Your task to perform on an android device: Show me popular videos on Youtube Image 0: 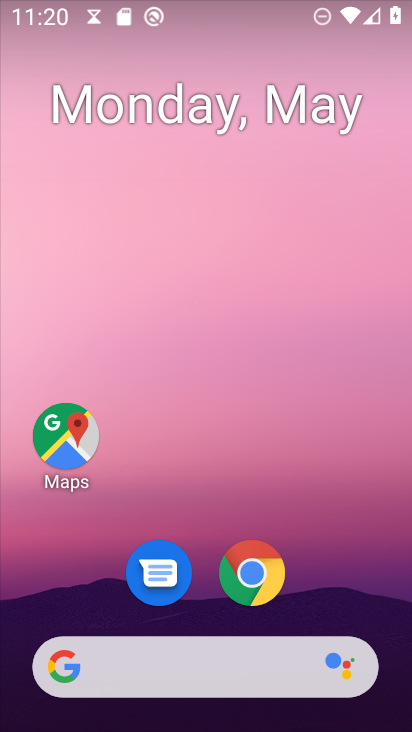
Step 0: drag from (340, 585) to (223, 20)
Your task to perform on an android device: Show me popular videos on Youtube Image 1: 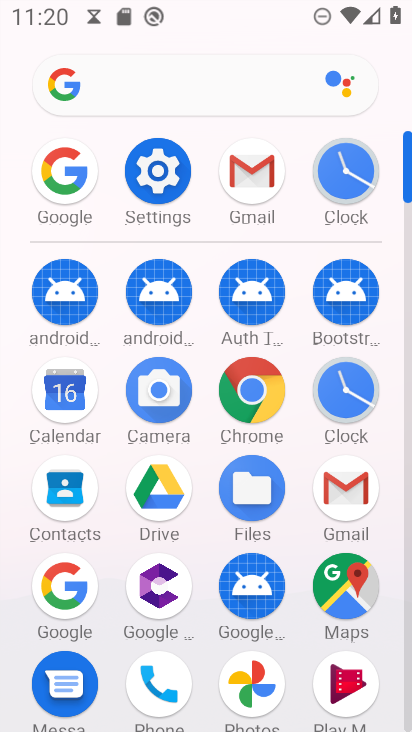
Step 1: drag from (302, 579) to (286, 176)
Your task to perform on an android device: Show me popular videos on Youtube Image 2: 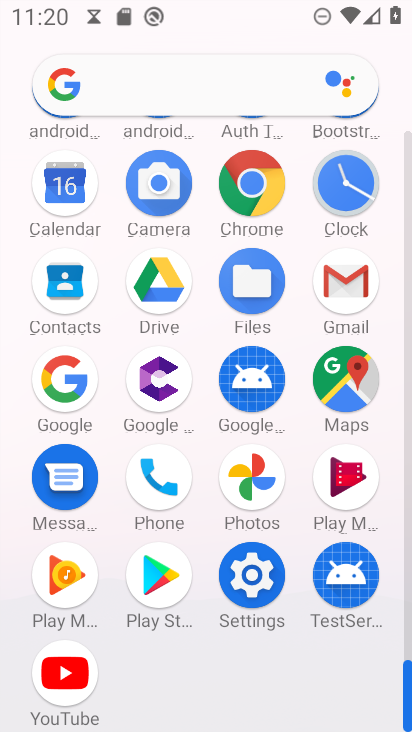
Step 2: click (69, 673)
Your task to perform on an android device: Show me popular videos on Youtube Image 3: 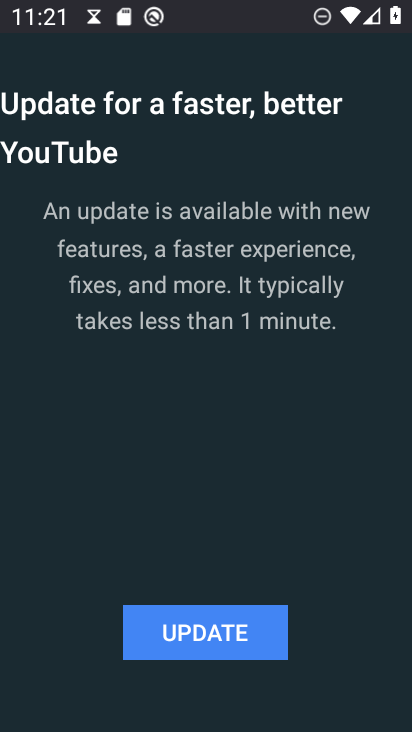
Step 3: click (246, 634)
Your task to perform on an android device: Show me popular videos on Youtube Image 4: 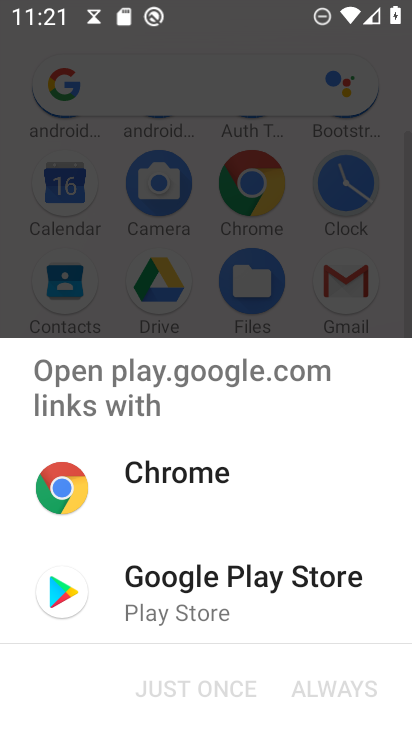
Step 4: click (215, 581)
Your task to perform on an android device: Show me popular videos on Youtube Image 5: 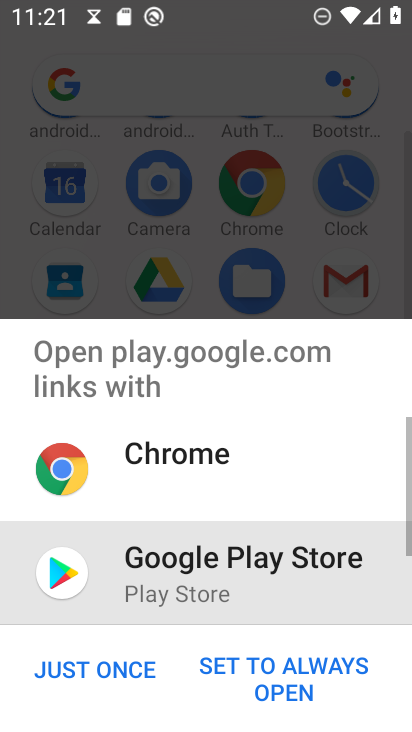
Step 5: click (76, 664)
Your task to perform on an android device: Show me popular videos on Youtube Image 6: 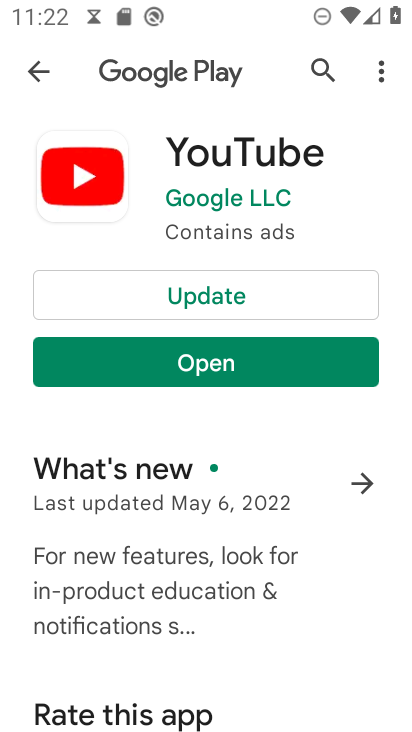
Step 6: click (283, 356)
Your task to perform on an android device: Show me popular videos on Youtube Image 7: 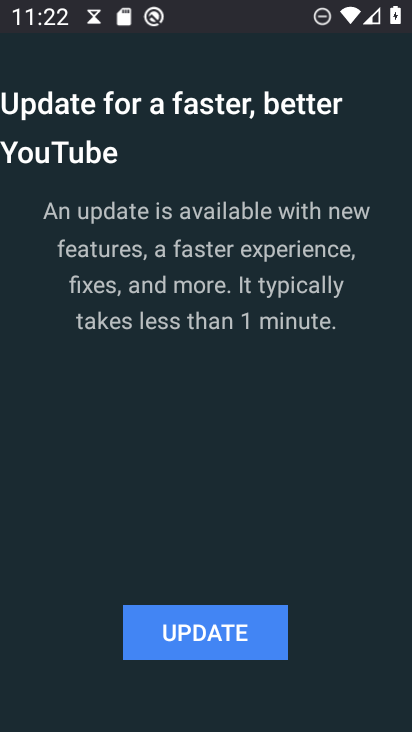
Step 7: click (243, 645)
Your task to perform on an android device: Show me popular videos on Youtube Image 8: 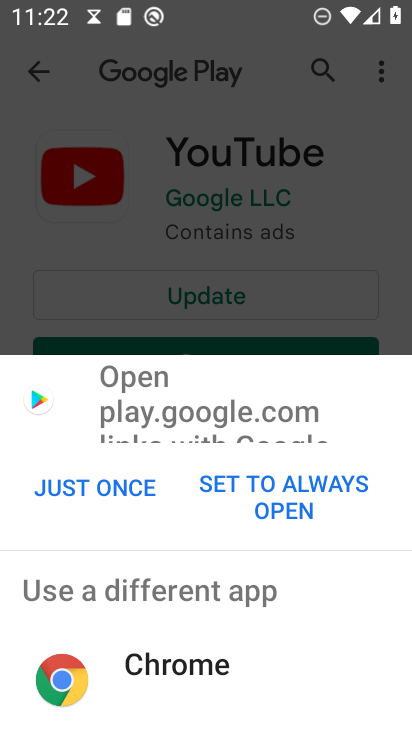
Step 8: click (118, 474)
Your task to perform on an android device: Show me popular videos on Youtube Image 9: 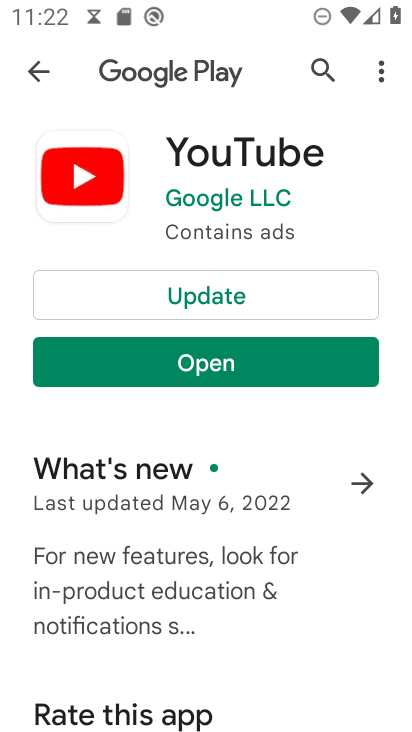
Step 9: click (215, 283)
Your task to perform on an android device: Show me popular videos on Youtube Image 10: 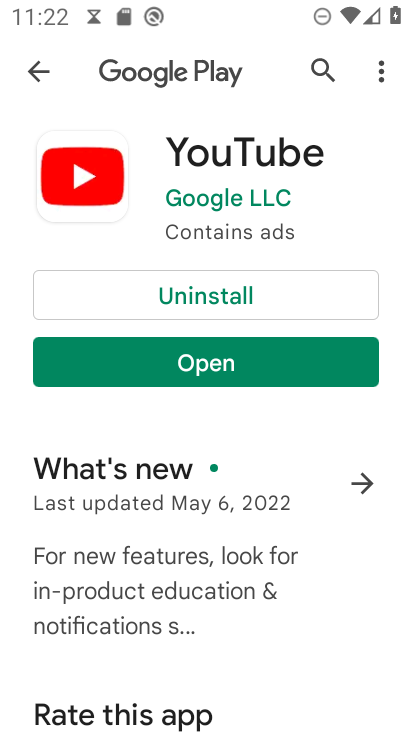
Step 10: click (253, 357)
Your task to perform on an android device: Show me popular videos on Youtube Image 11: 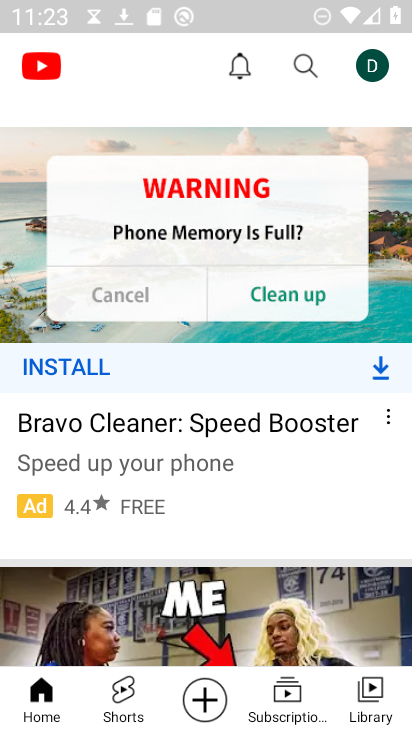
Step 11: click (46, 706)
Your task to perform on an android device: Show me popular videos on Youtube Image 12: 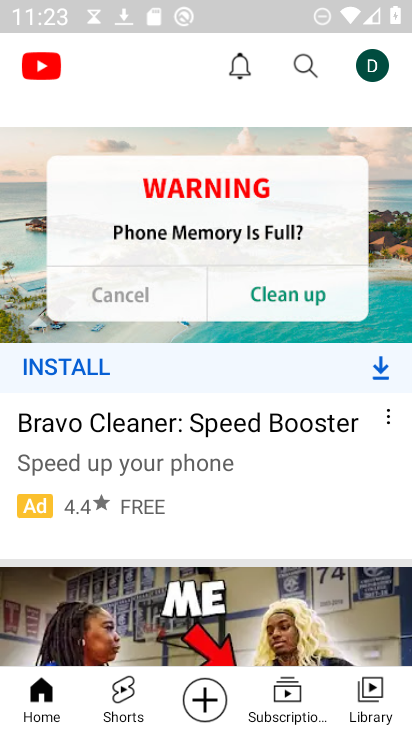
Step 12: drag from (174, 129) to (182, 542)
Your task to perform on an android device: Show me popular videos on Youtube Image 13: 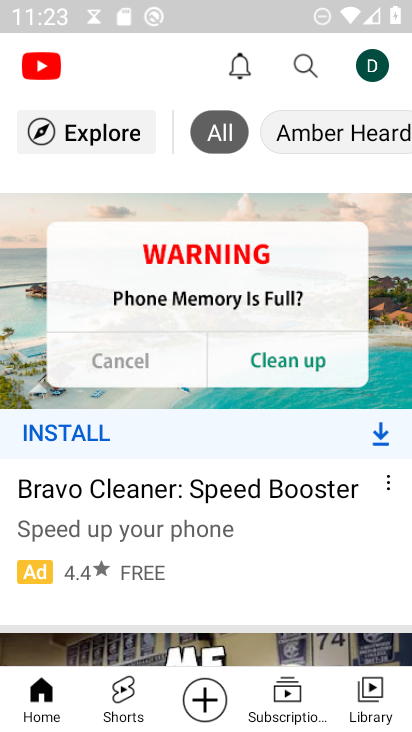
Step 13: click (110, 139)
Your task to perform on an android device: Show me popular videos on Youtube Image 14: 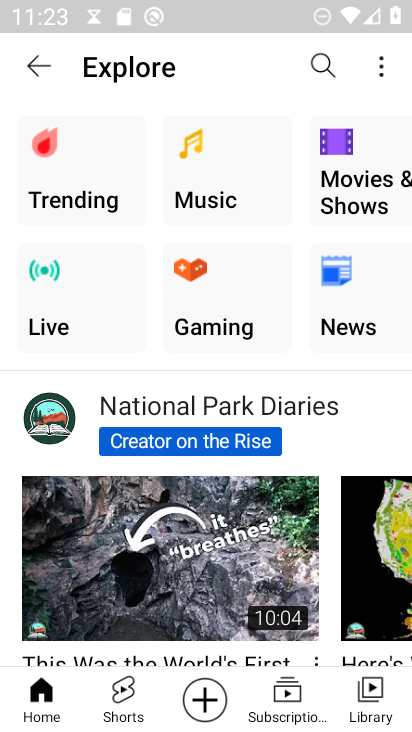
Step 14: click (79, 199)
Your task to perform on an android device: Show me popular videos on Youtube Image 15: 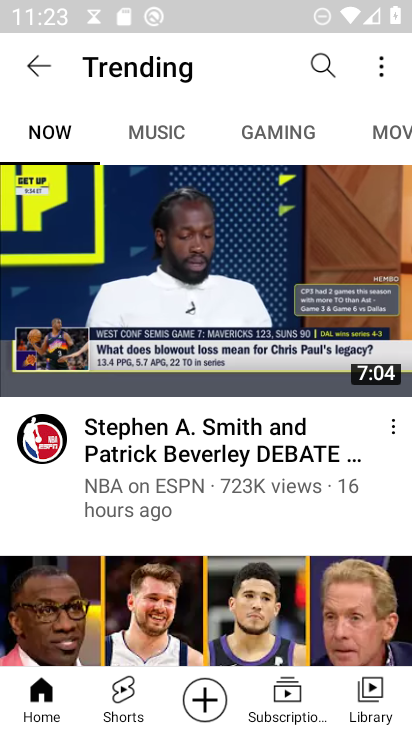
Step 15: task complete